Your task to perform on an android device: open sync settings in chrome Image 0: 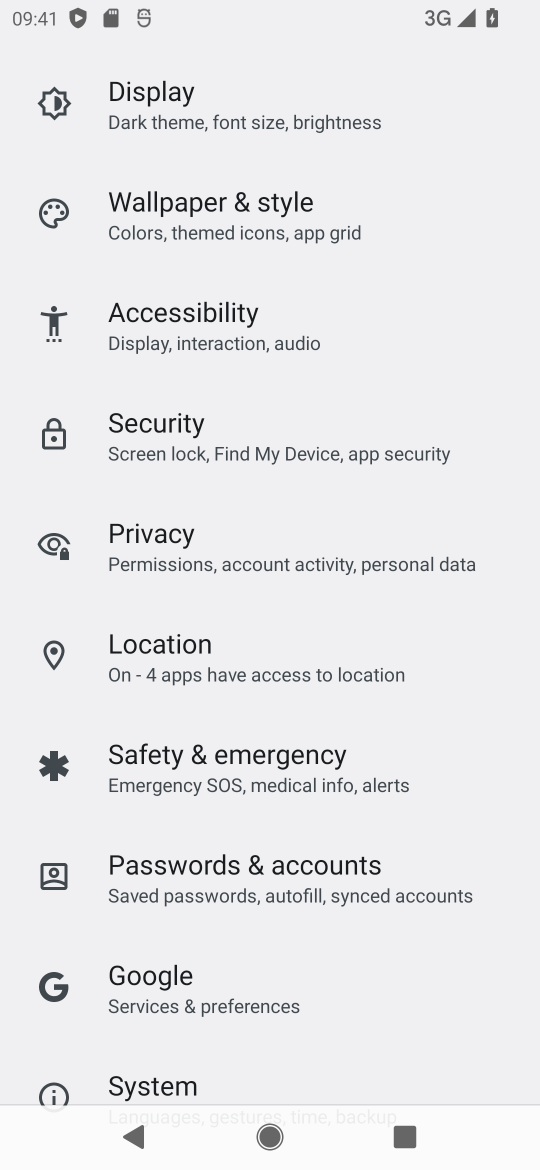
Step 0: press home button
Your task to perform on an android device: open sync settings in chrome Image 1: 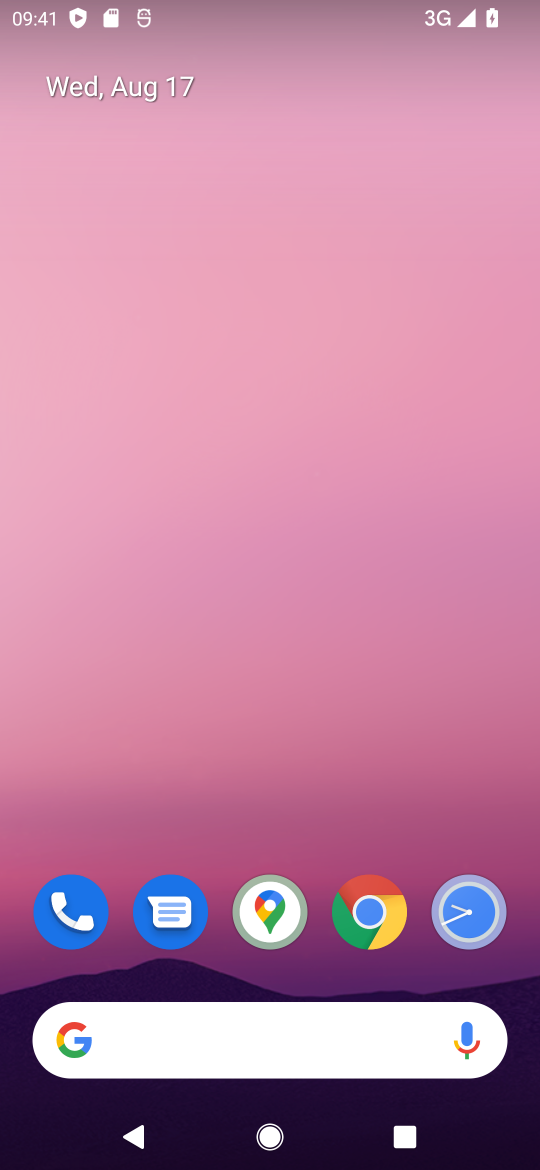
Step 1: drag from (285, 961) to (242, 249)
Your task to perform on an android device: open sync settings in chrome Image 2: 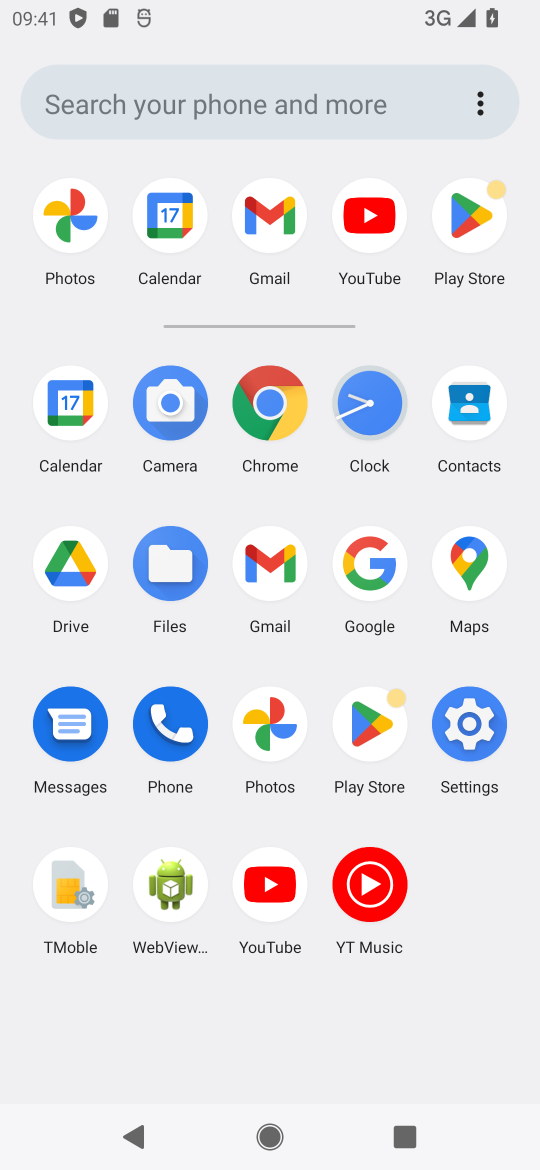
Step 2: click (279, 411)
Your task to perform on an android device: open sync settings in chrome Image 3: 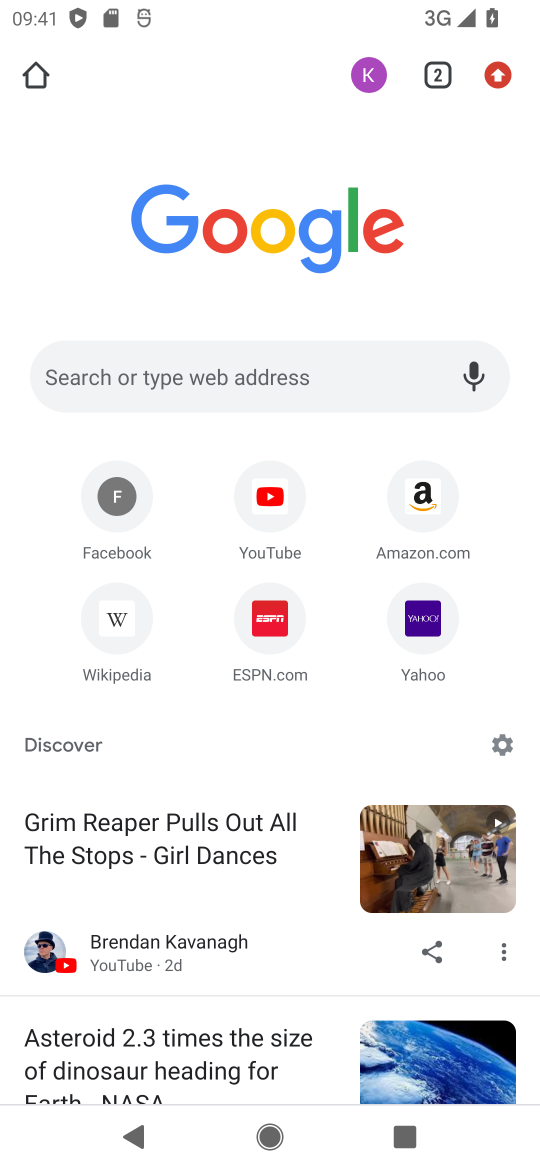
Step 3: click (500, 72)
Your task to perform on an android device: open sync settings in chrome Image 4: 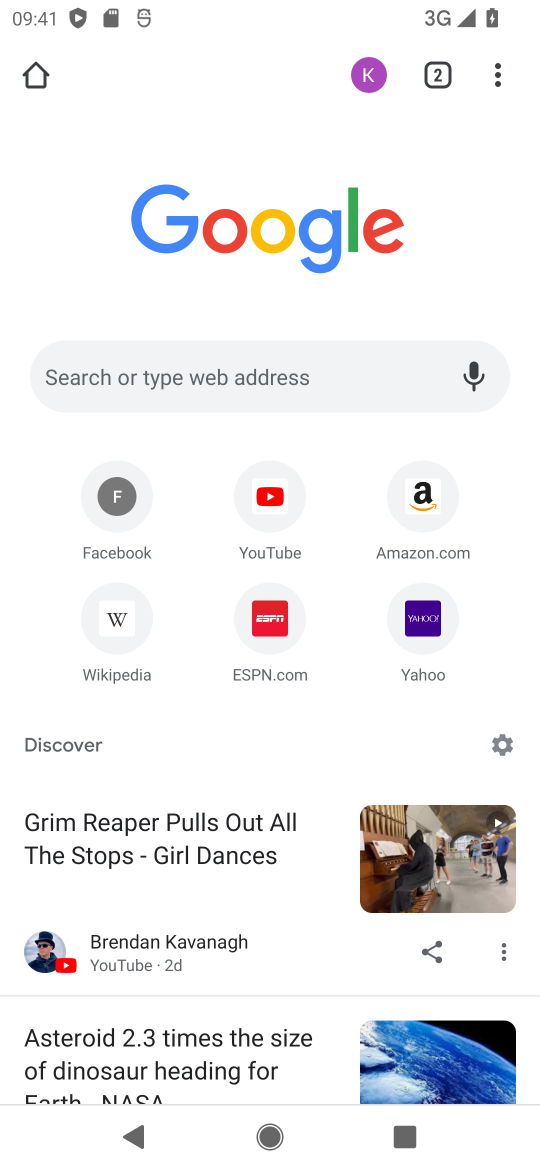
Step 4: click (492, 76)
Your task to perform on an android device: open sync settings in chrome Image 5: 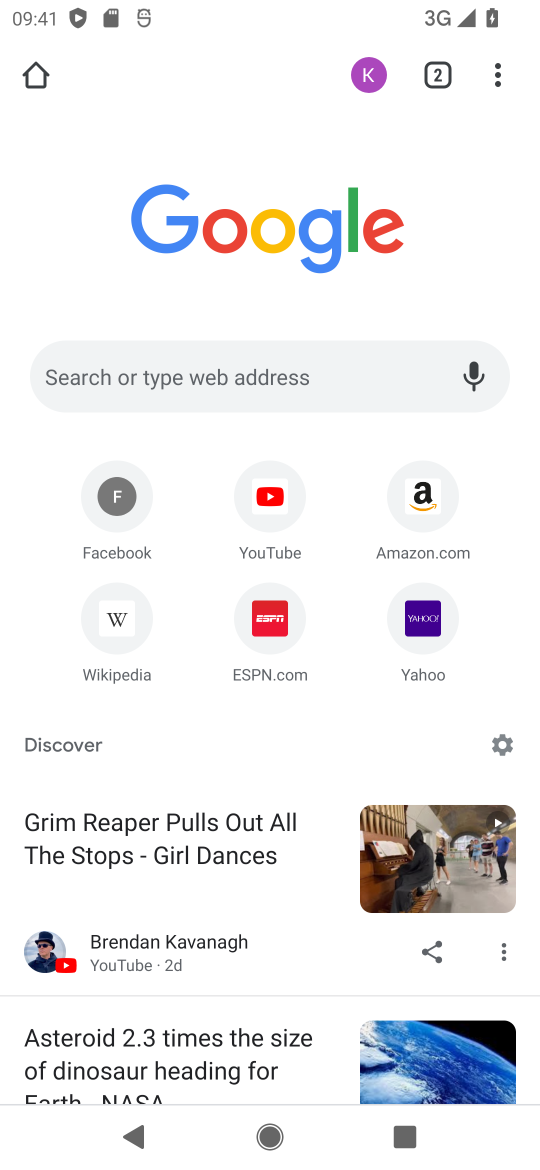
Step 5: click (498, 75)
Your task to perform on an android device: open sync settings in chrome Image 6: 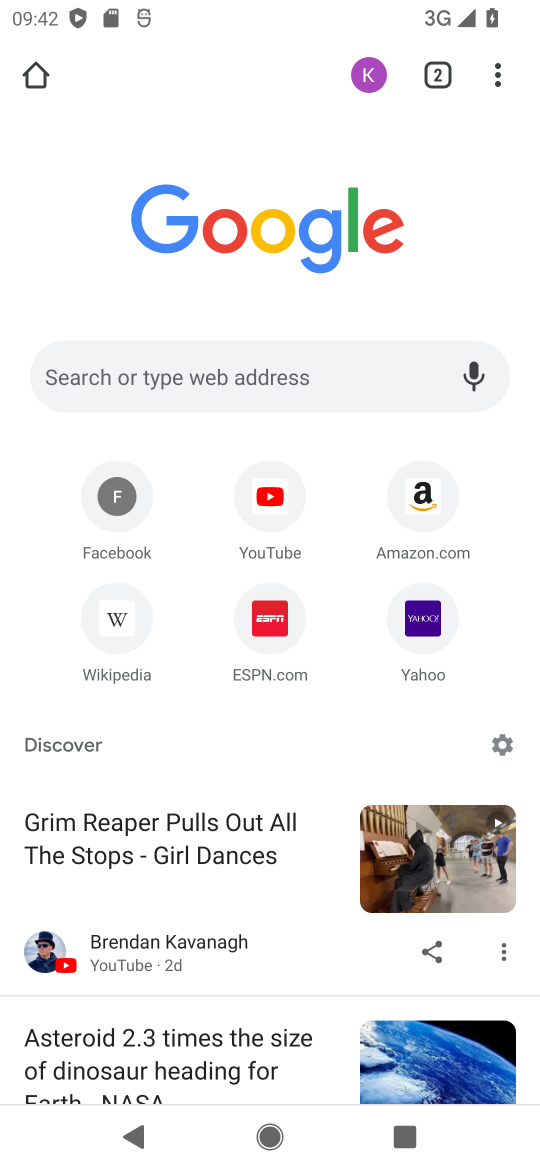
Step 6: click (480, 83)
Your task to perform on an android device: open sync settings in chrome Image 7: 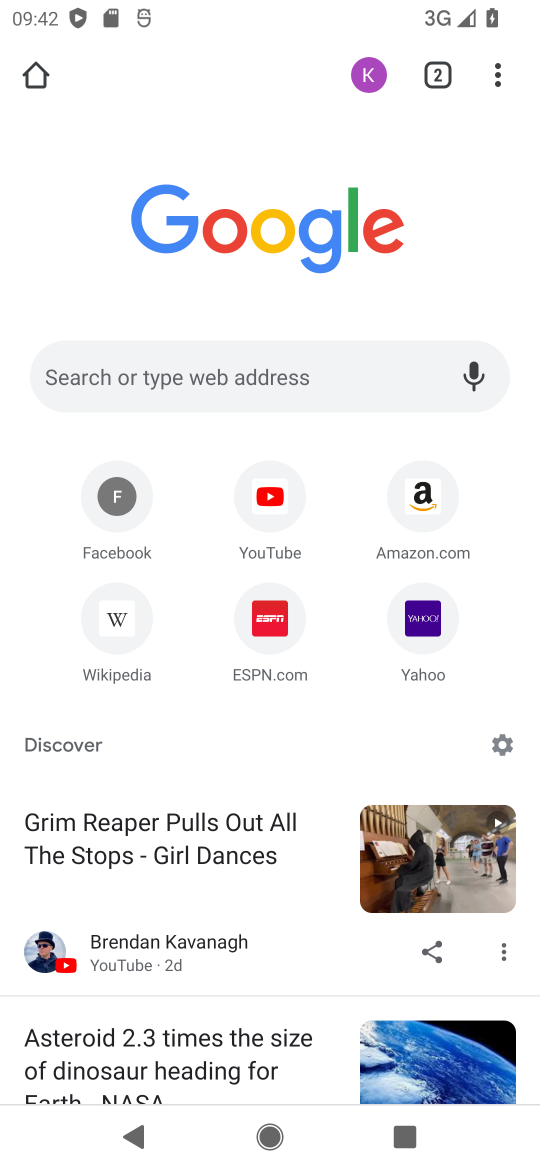
Step 7: click (488, 87)
Your task to perform on an android device: open sync settings in chrome Image 8: 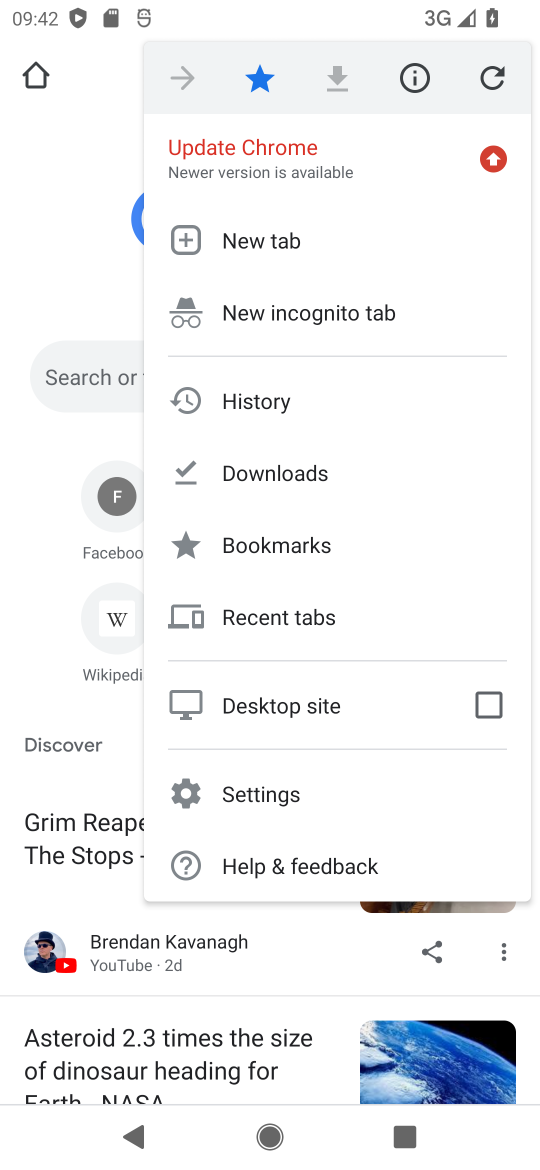
Step 8: click (290, 774)
Your task to perform on an android device: open sync settings in chrome Image 9: 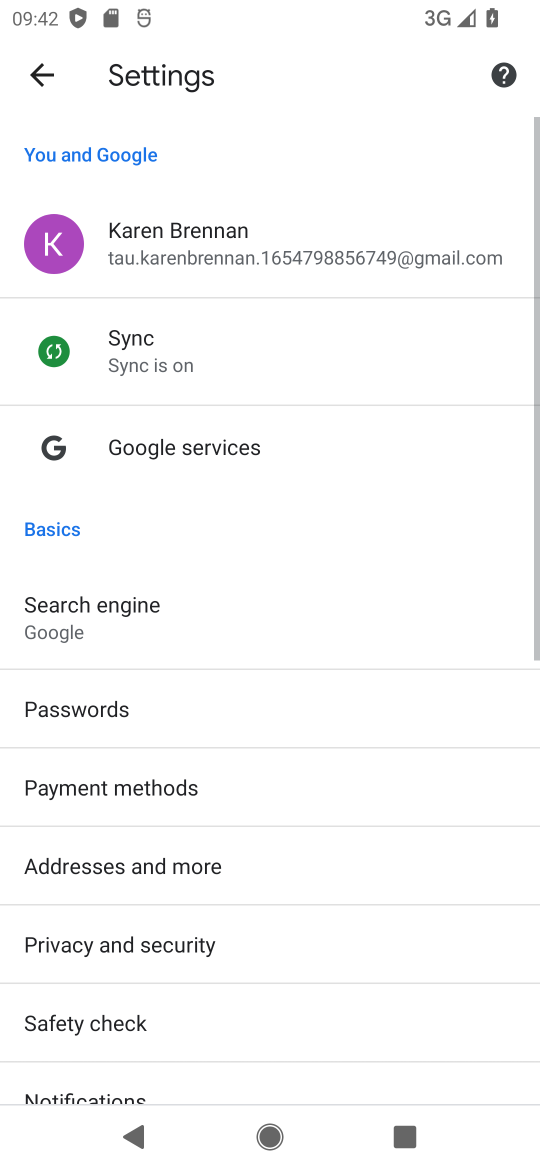
Step 9: click (170, 387)
Your task to perform on an android device: open sync settings in chrome Image 10: 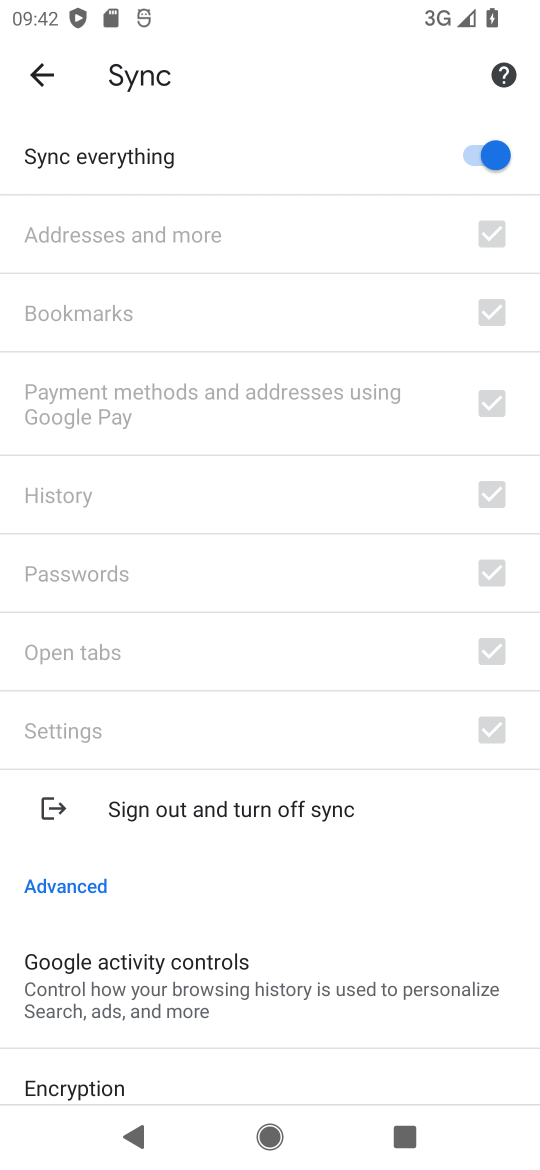
Step 10: task complete